Your task to perform on an android device: set default search engine in the chrome app Image 0: 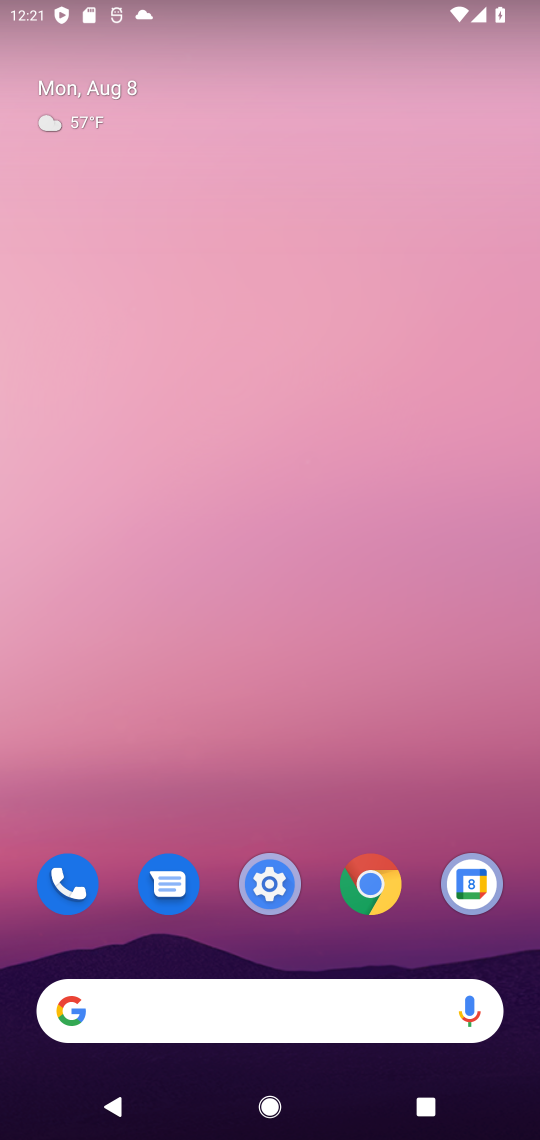
Step 0: click (408, 874)
Your task to perform on an android device: set default search engine in the chrome app Image 1: 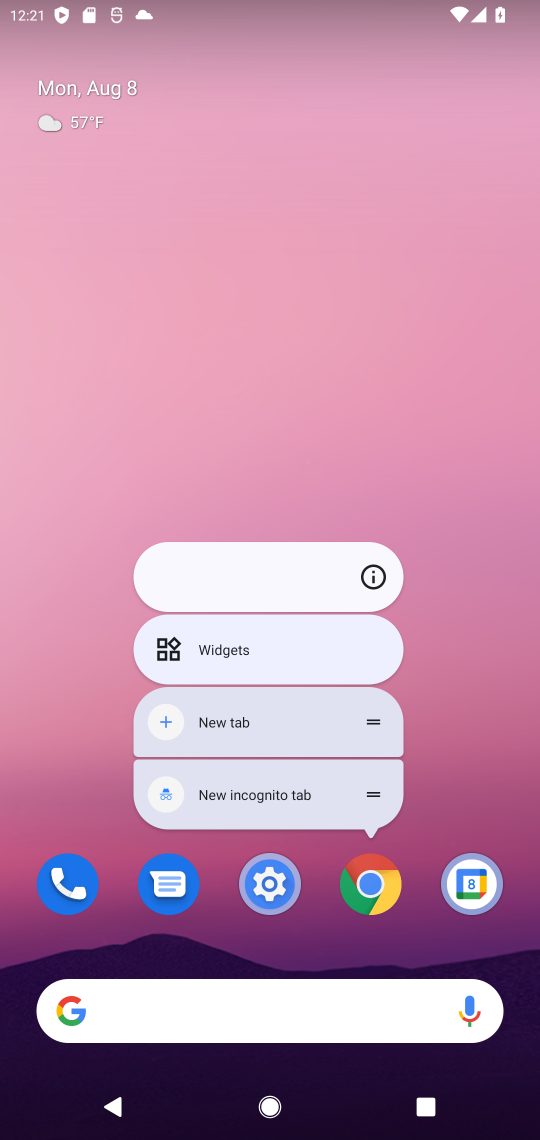
Step 1: click (393, 882)
Your task to perform on an android device: set default search engine in the chrome app Image 2: 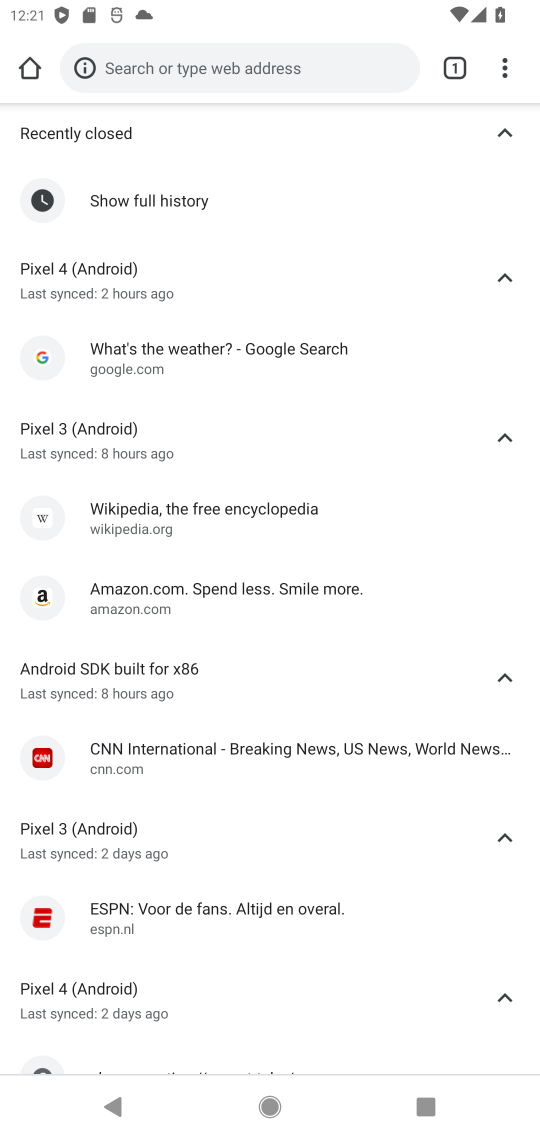
Step 2: click (506, 60)
Your task to perform on an android device: set default search engine in the chrome app Image 3: 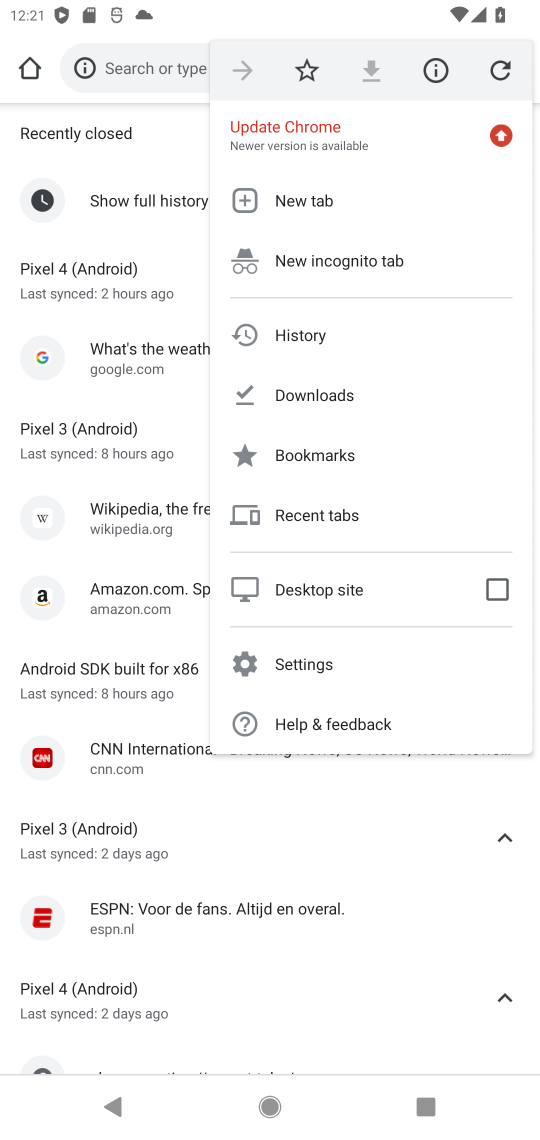
Step 3: click (333, 663)
Your task to perform on an android device: set default search engine in the chrome app Image 4: 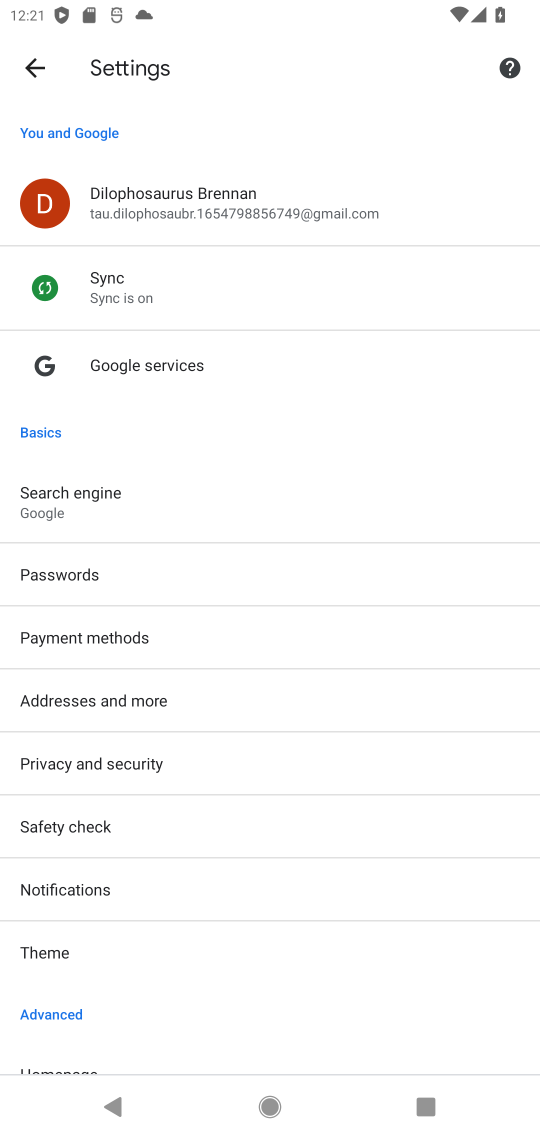
Step 4: click (123, 504)
Your task to perform on an android device: set default search engine in the chrome app Image 5: 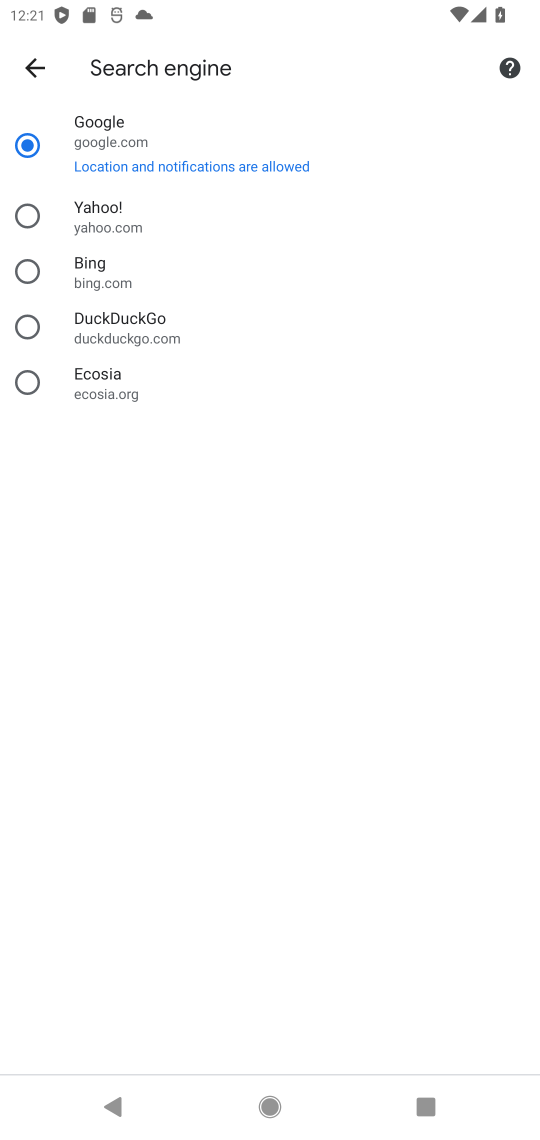
Step 5: task complete